Your task to perform on an android device: Is it going to rain tomorrow? Image 0: 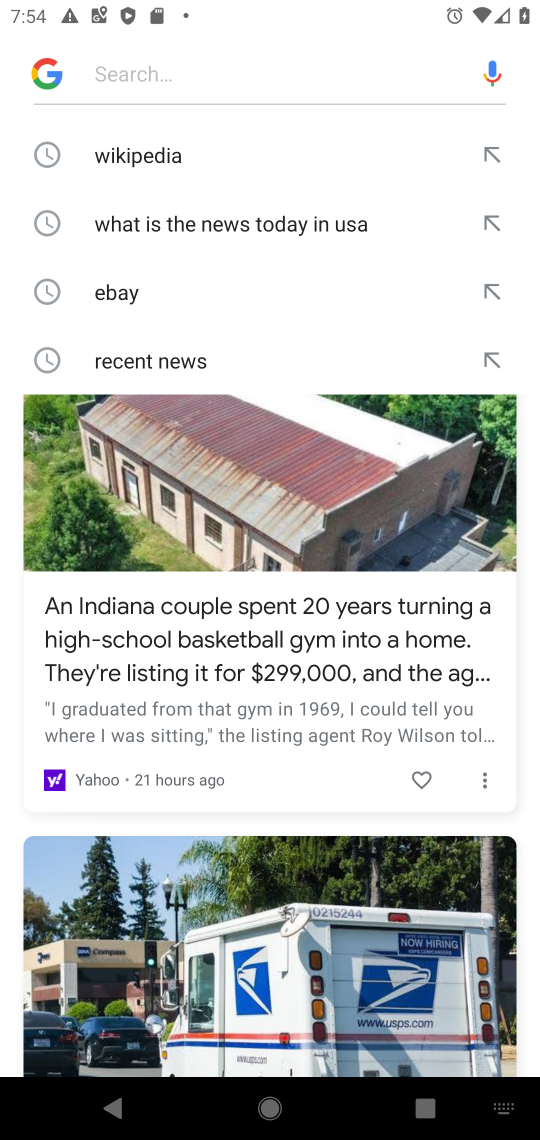
Step 0: press home button
Your task to perform on an android device: Is it going to rain tomorrow? Image 1: 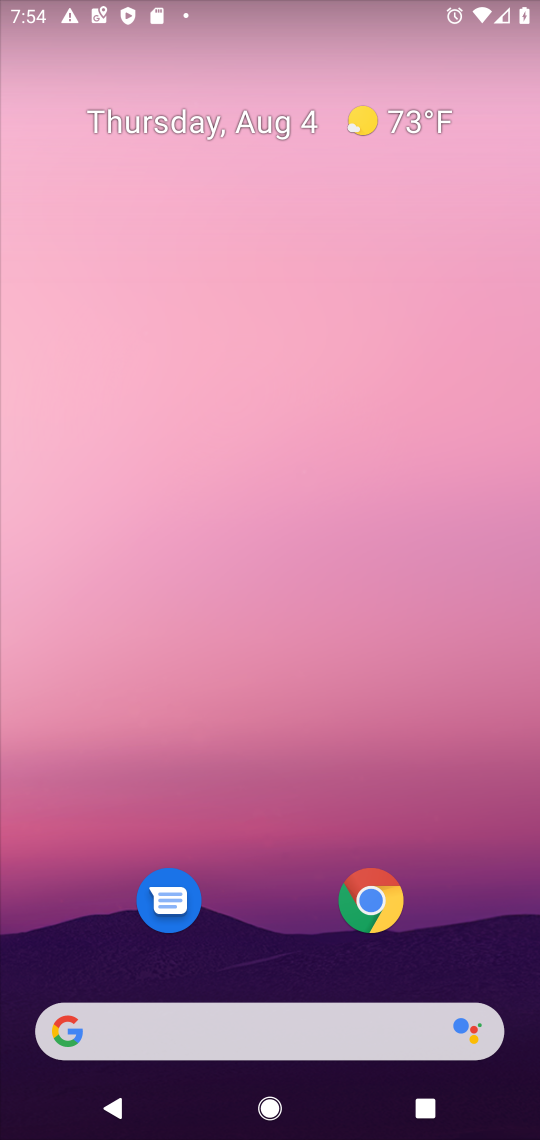
Step 1: drag from (285, 1016) to (506, 162)
Your task to perform on an android device: Is it going to rain tomorrow? Image 2: 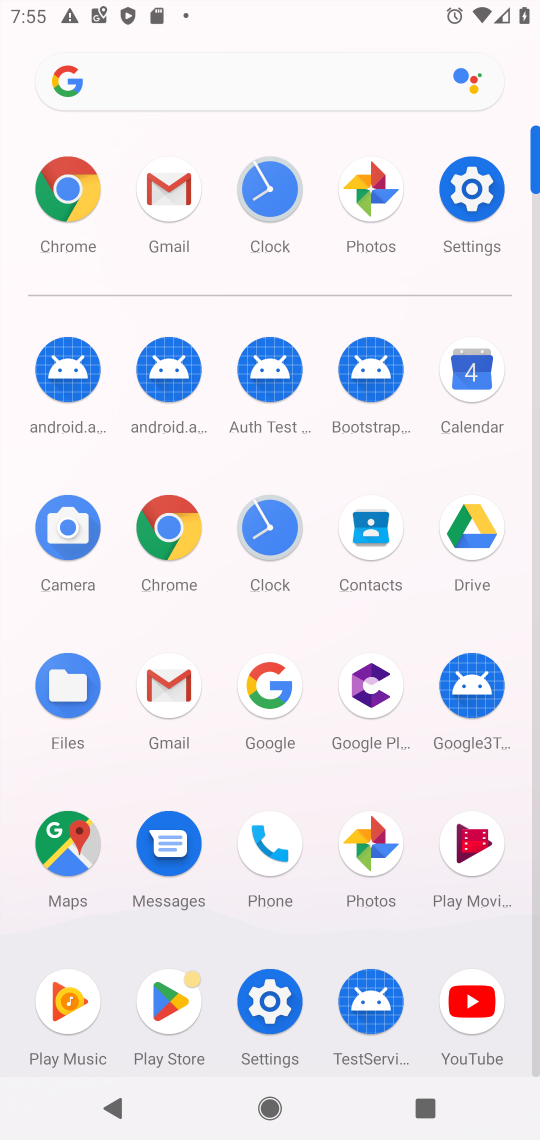
Step 2: click (266, 687)
Your task to perform on an android device: Is it going to rain tomorrow? Image 3: 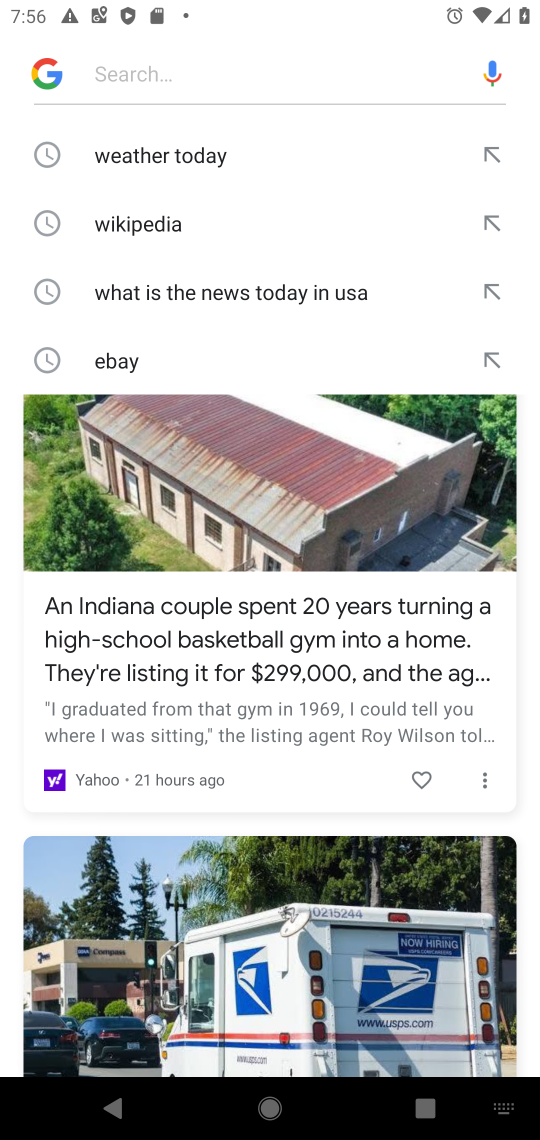
Step 3: type "Is it going to rain tomorrow?"
Your task to perform on an android device: Is it going to rain tomorrow? Image 4: 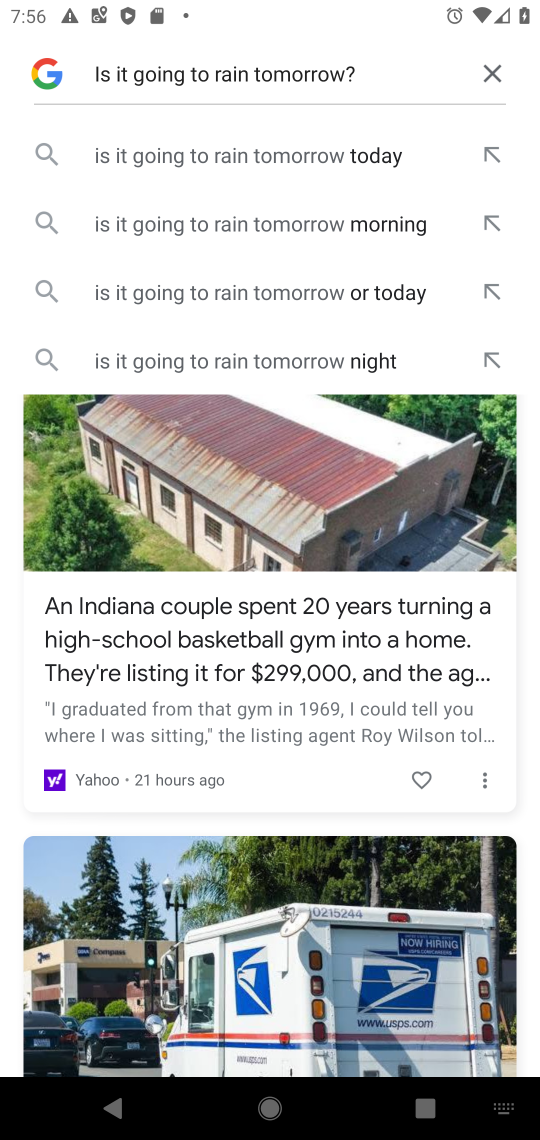
Step 4: click (205, 157)
Your task to perform on an android device: Is it going to rain tomorrow? Image 5: 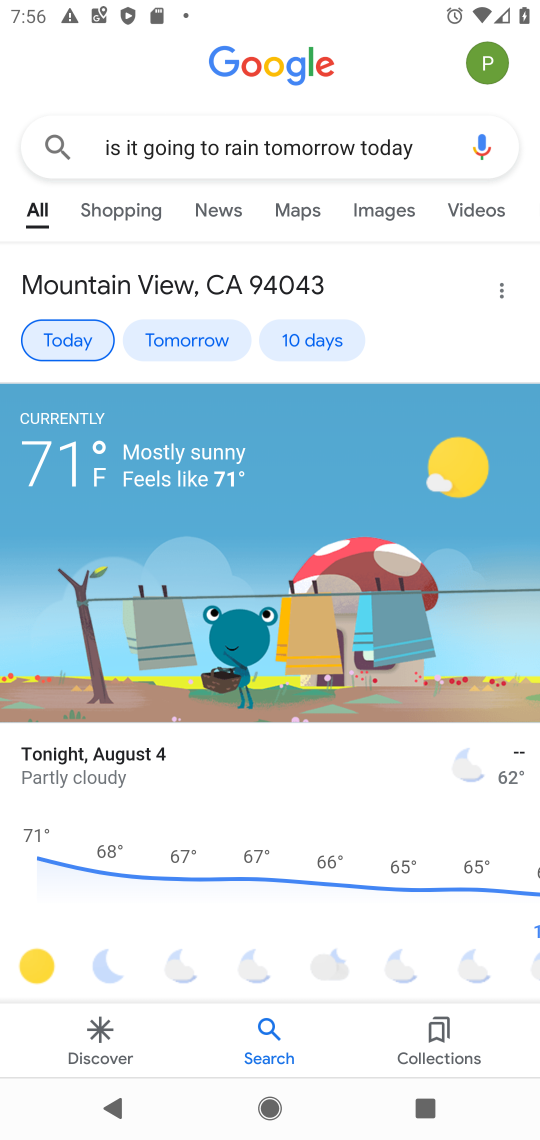
Step 5: task complete